Your task to perform on an android device: open device folders in google photos Image 0: 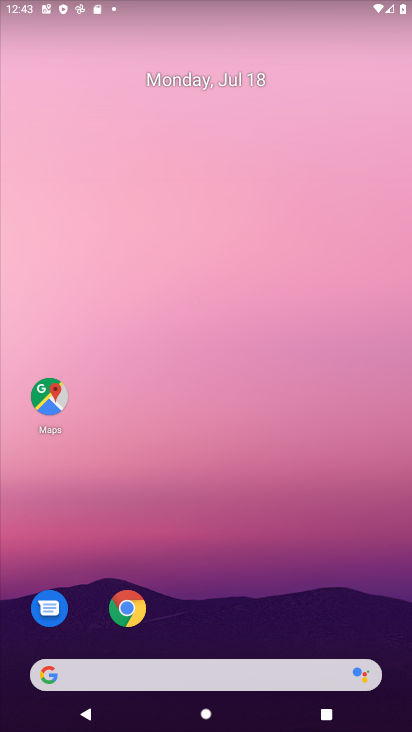
Step 0: drag from (381, 643) to (265, 42)
Your task to perform on an android device: open device folders in google photos Image 1: 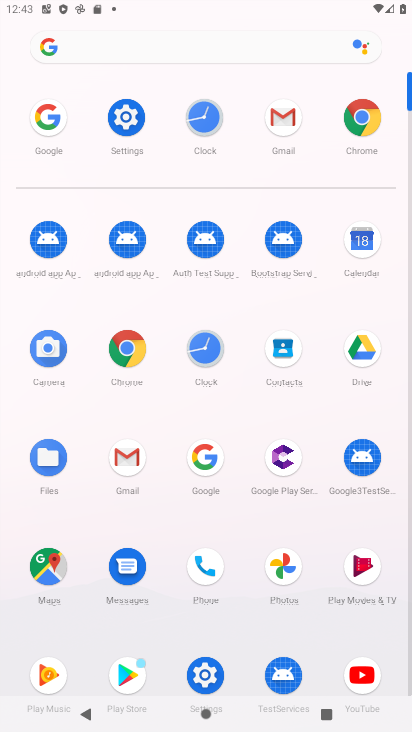
Step 1: click (291, 566)
Your task to perform on an android device: open device folders in google photos Image 2: 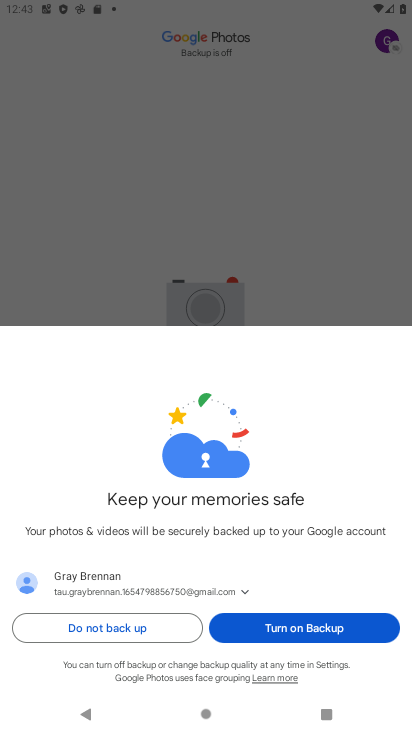
Step 2: click (287, 634)
Your task to perform on an android device: open device folders in google photos Image 3: 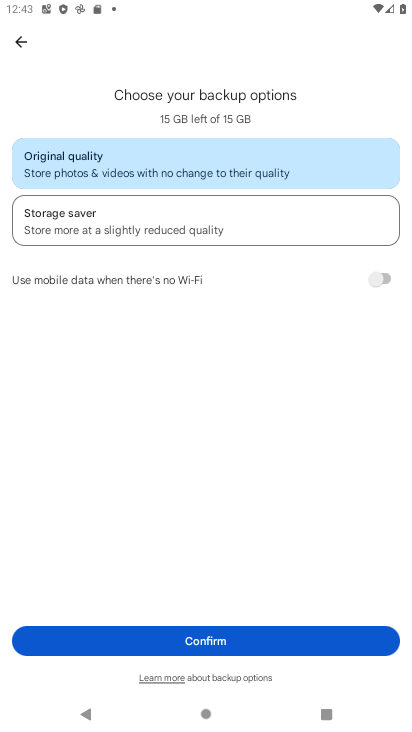
Step 3: click (192, 635)
Your task to perform on an android device: open device folders in google photos Image 4: 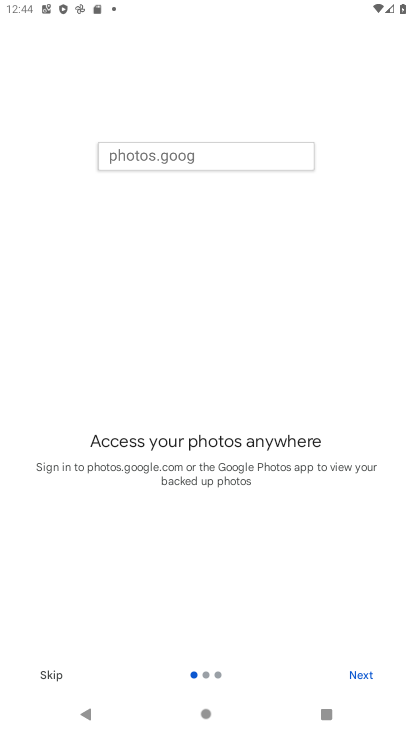
Step 4: click (380, 684)
Your task to perform on an android device: open device folders in google photos Image 5: 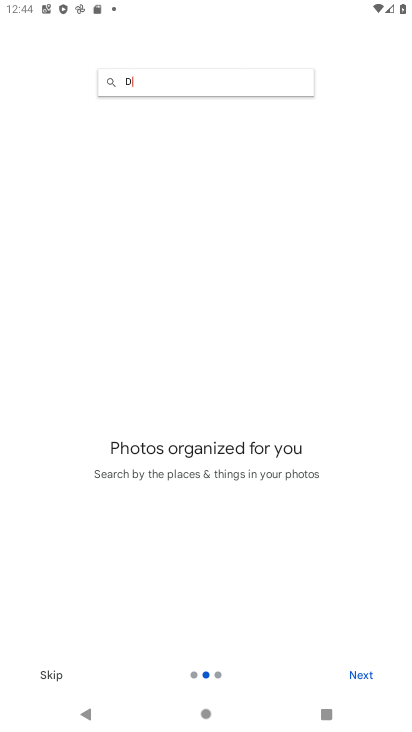
Step 5: click (358, 676)
Your task to perform on an android device: open device folders in google photos Image 6: 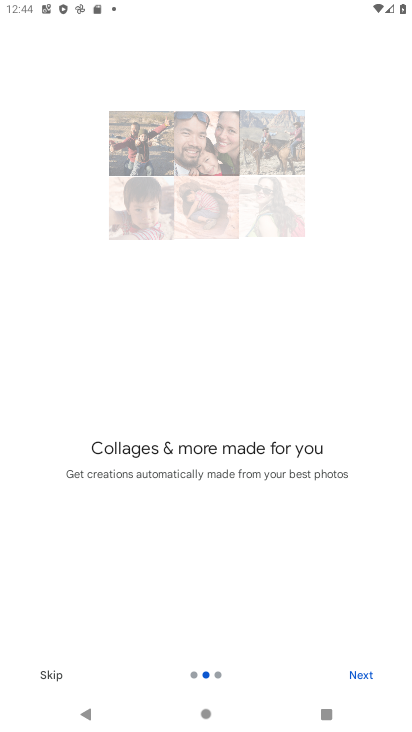
Step 6: click (358, 676)
Your task to perform on an android device: open device folders in google photos Image 7: 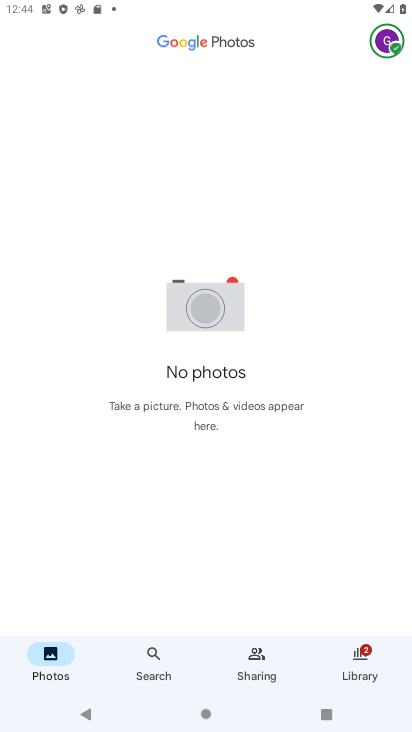
Step 7: task complete